Your task to perform on an android device: Go to battery settings Image 0: 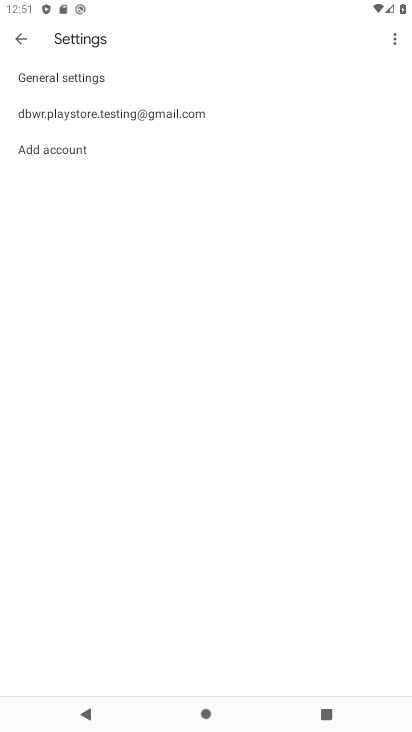
Step 0: press home button
Your task to perform on an android device: Go to battery settings Image 1: 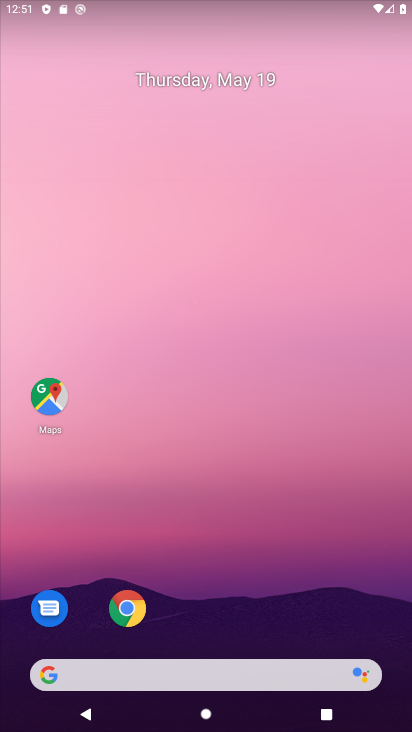
Step 1: drag from (224, 635) to (353, 46)
Your task to perform on an android device: Go to battery settings Image 2: 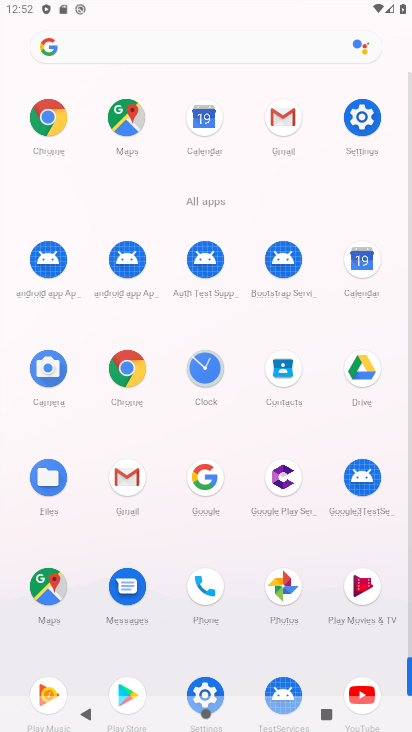
Step 2: drag from (210, 601) to (243, 292)
Your task to perform on an android device: Go to battery settings Image 3: 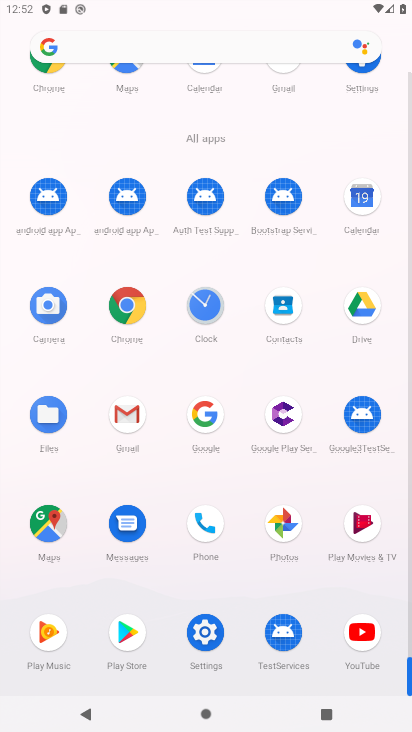
Step 3: click (206, 622)
Your task to perform on an android device: Go to battery settings Image 4: 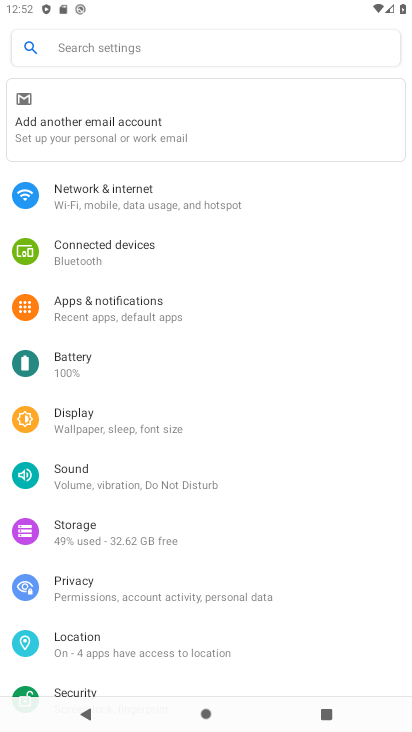
Step 4: click (100, 361)
Your task to perform on an android device: Go to battery settings Image 5: 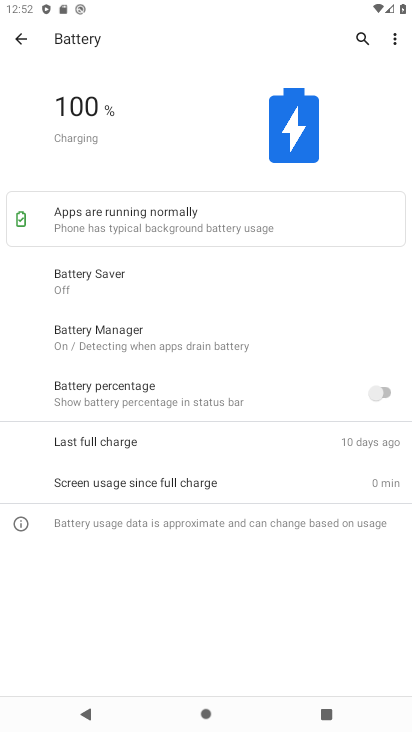
Step 5: task complete